Your task to perform on an android device: Open settings Image 0: 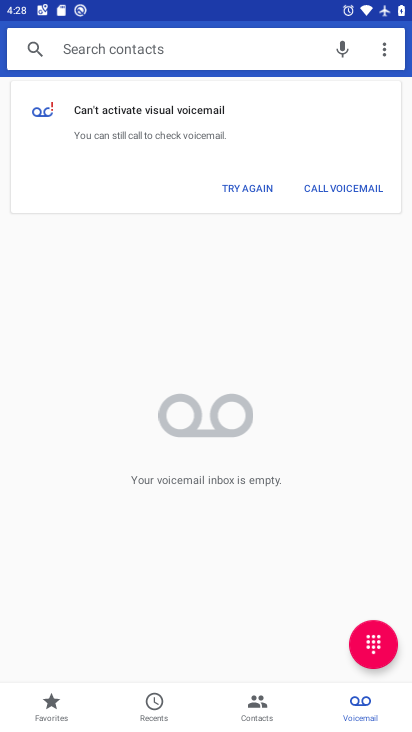
Step 0: press home button
Your task to perform on an android device: Open settings Image 1: 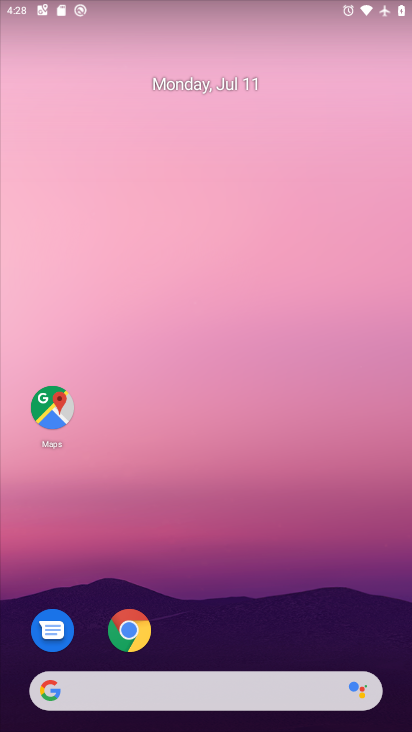
Step 1: drag from (288, 617) to (227, 61)
Your task to perform on an android device: Open settings Image 2: 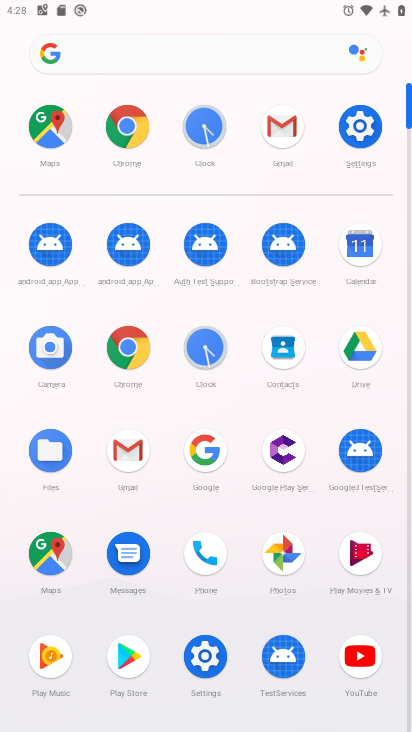
Step 2: click (345, 135)
Your task to perform on an android device: Open settings Image 3: 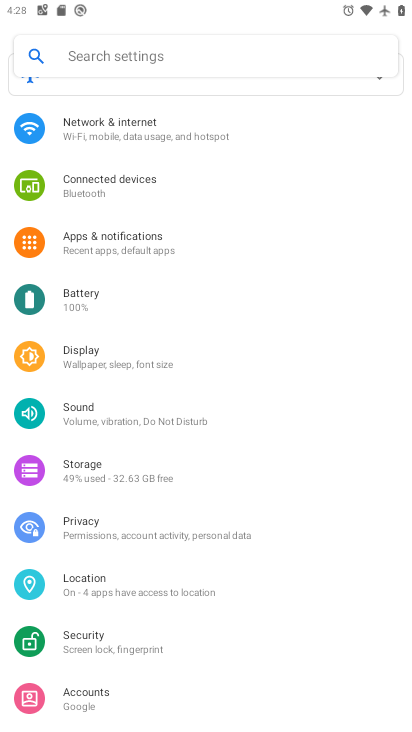
Step 3: task complete